Your task to perform on an android device: Open the map Image 0: 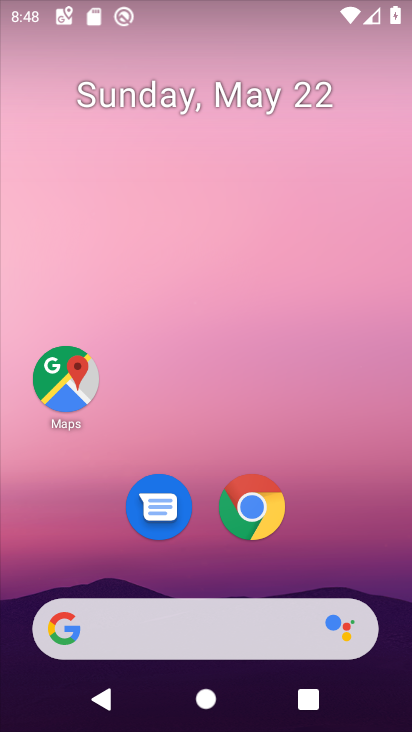
Step 0: click (72, 374)
Your task to perform on an android device: Open the map Image 1: 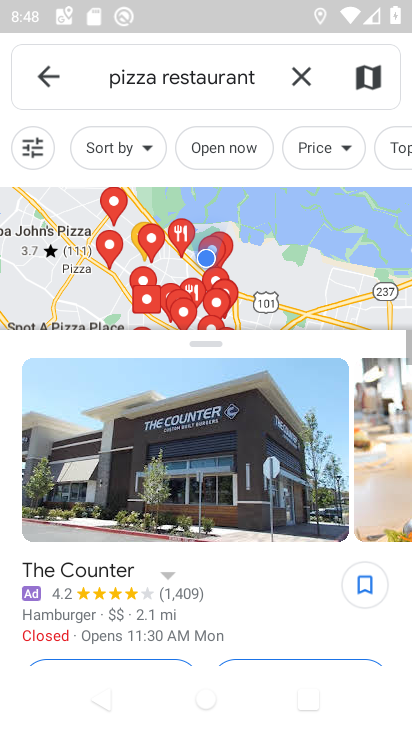
Step 1: task complete